Your task to perform on an android device: Open the calendar and show me this week's events? Image 0: 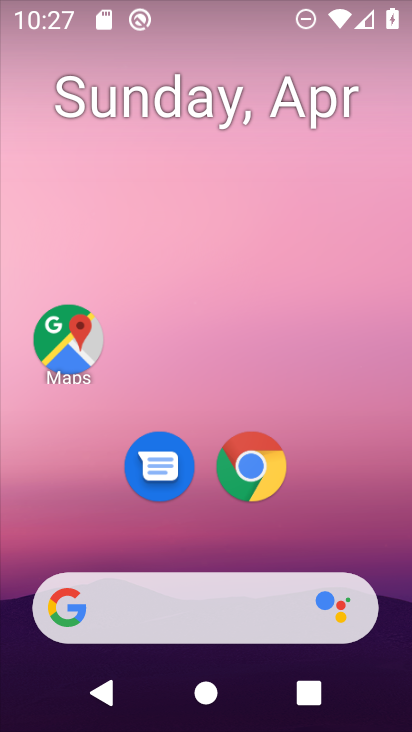
Step 0: drag from (356, 517) to (360, 121)
Your task to perform on an android device: Open the calendar and show me this week's events? Image 1: 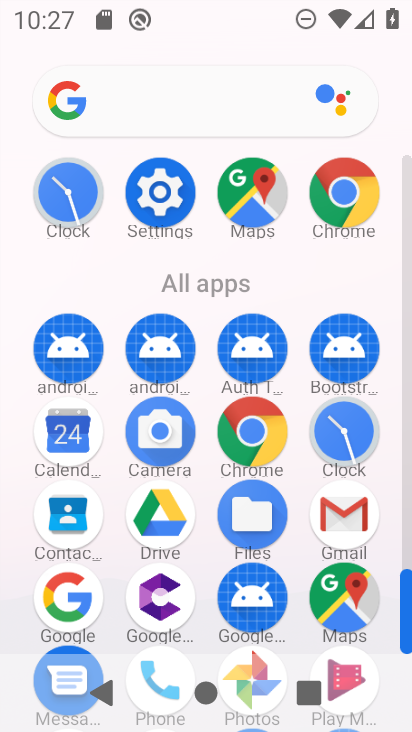
Step 1: drag from (293, 521) to (297, 352)
Your task to perform on an android device: Open the calendar and show me this week's events? Image 2: 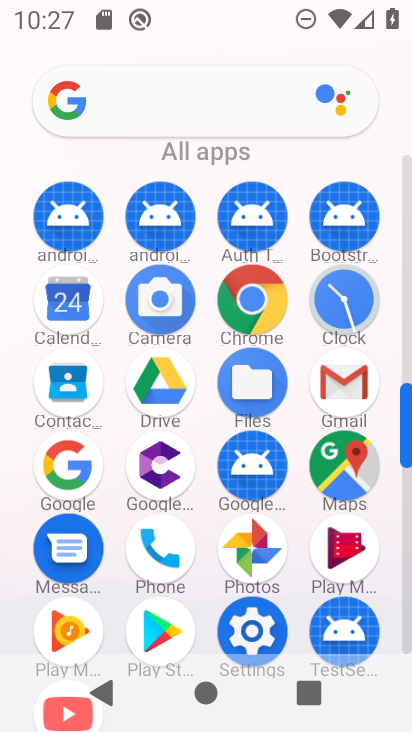
Step 2: click (51, 308)
Your task to perform on an android device: Open the calendar and show me this week's events? Image 3: 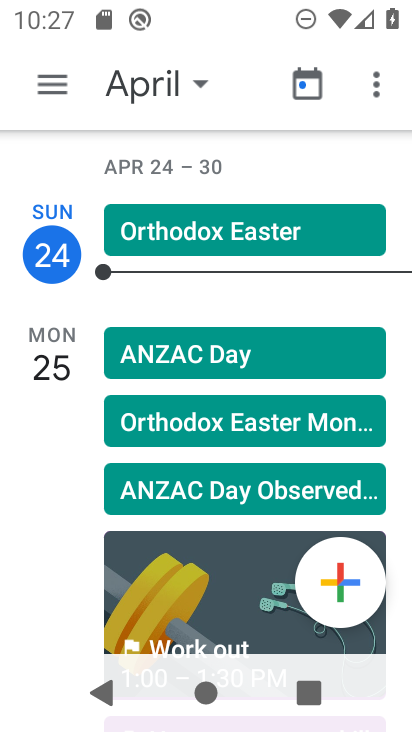
Step 3: drag from (275, 279) to (279, 507)
Your task to perform on an android device: Open the calendar and show me this week's events? Image 4: 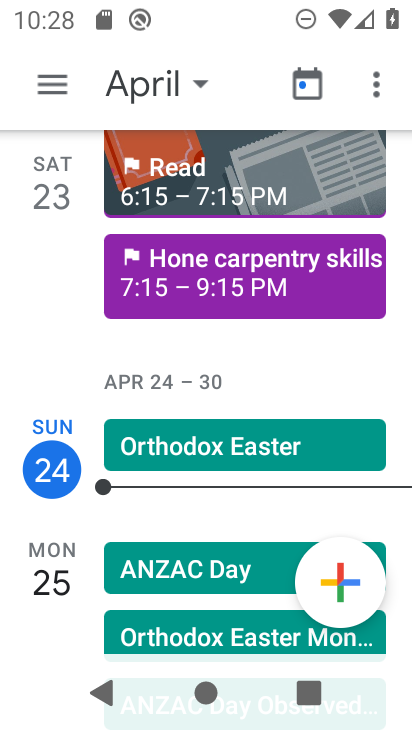
Step 4: drag from (273, 190) to (271, 350)
Your task to perform on an android device: Open the calendar and show me this week's events? Image 5: 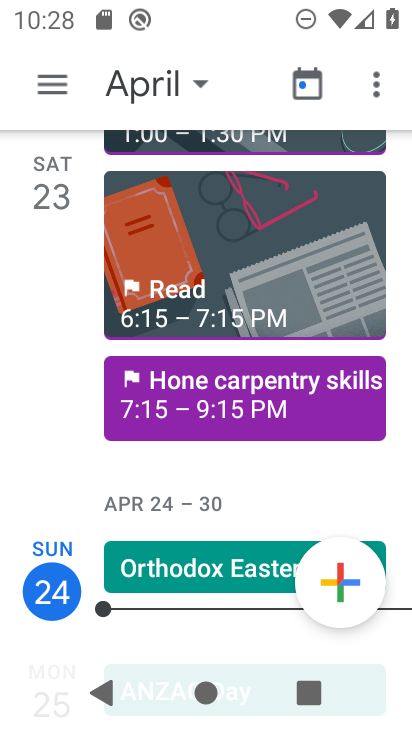
Step 5: drag from (235, 436) to (243, 182)
Your task to perform on an android device: Open the calendar and show me this week's events? Image 6: 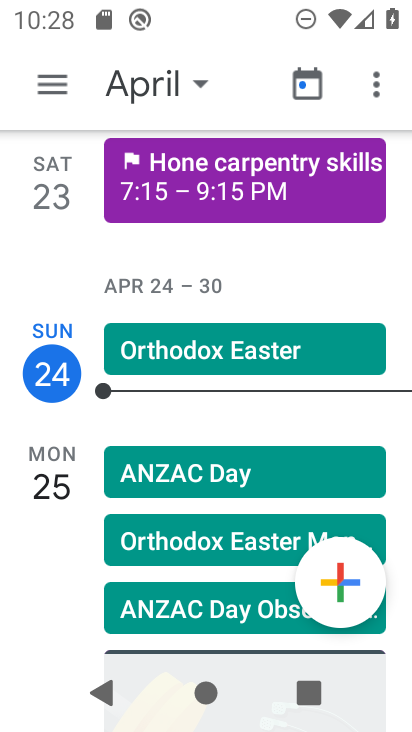
Step 6: drag from (221, 534) to (269, 271)
Your task to perform on an android device: Open the calendar and show me this week's events? Image 7: 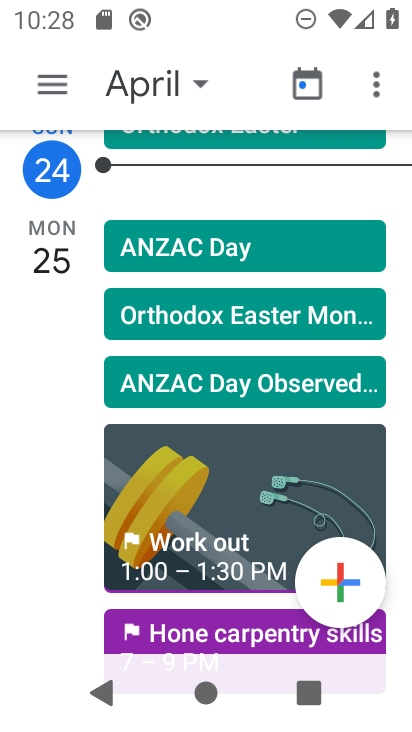
Step 7: drag from (259, 472) to (244, 224)
Your task to perform on an android device: Open the calendar and show me this week's events? Image 8: 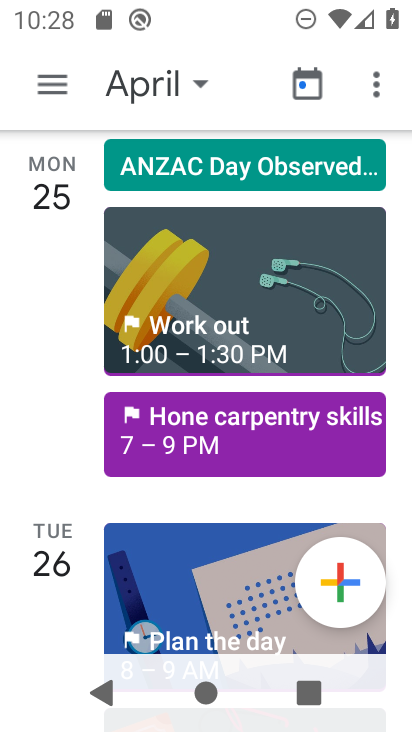
Step 8: drag from (223, 463) to (244, 248)
Your task to perform on an android device: Open the calendar and show me this week's events? Image 9: 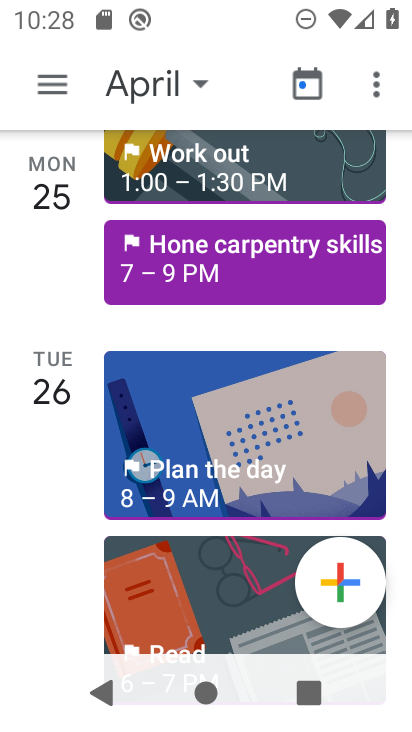
Step 9: click (253, 255)
Your task to perform on an android device: Open the calendar and show me this week's events? Image 10: 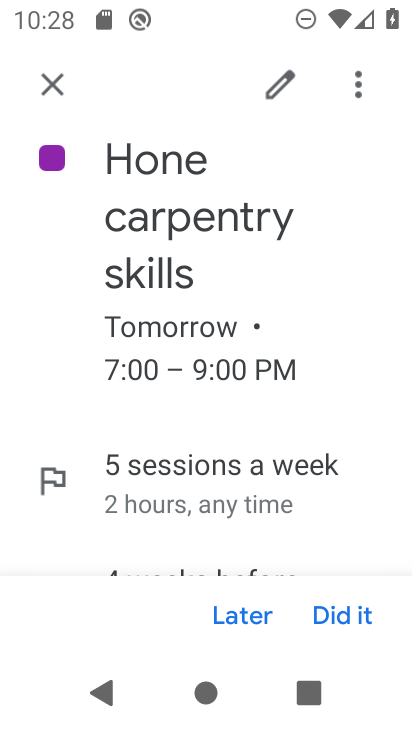
Step 10: task complete